Your task to perform on an android device: Open location settings Image 0: 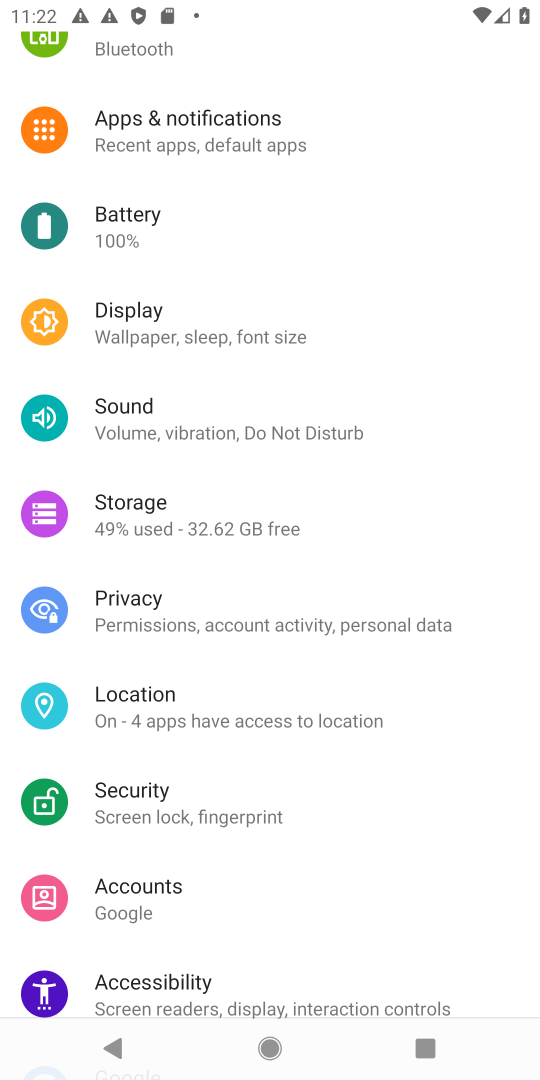
Step 0: press home button
Your task to perform on an android device: Open location settings Image 1: 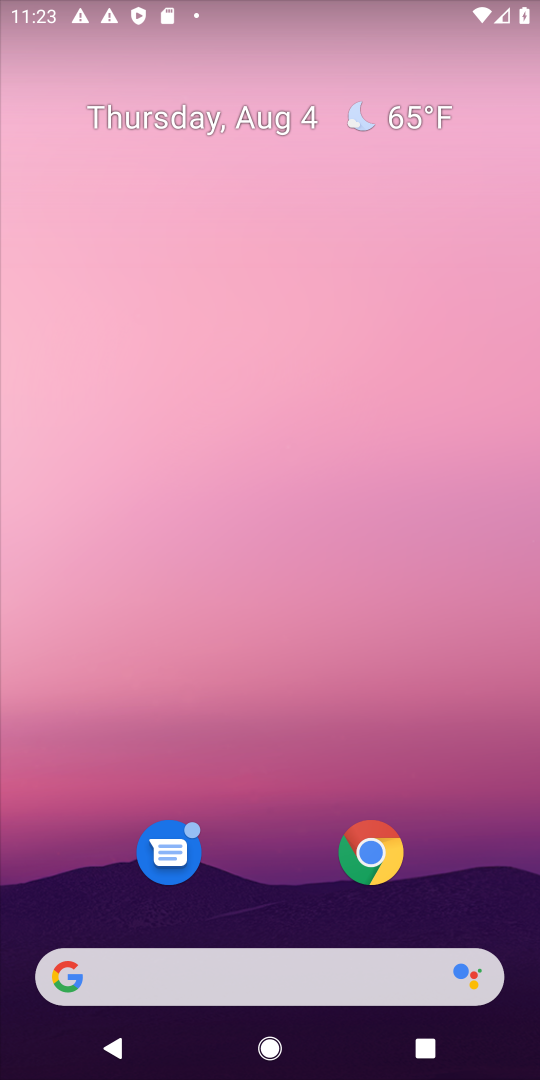
Step 1: drag from (479, 967) to (404, 271)
Your task to perform on an android device: Open location settings Image 2: 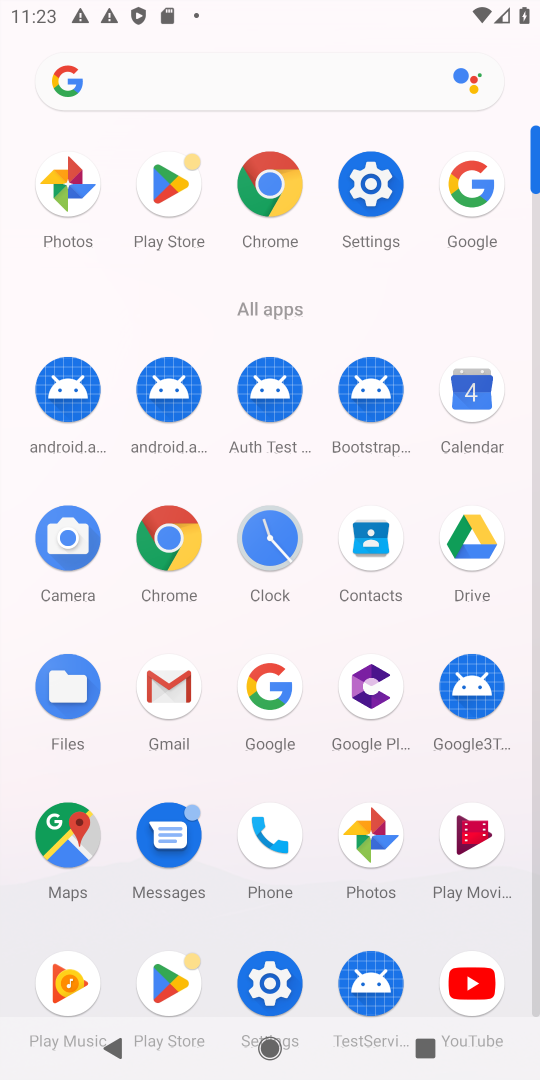
Step 2: click (260, 979)
Your task to perform on an android device: Open location settings Image 3: 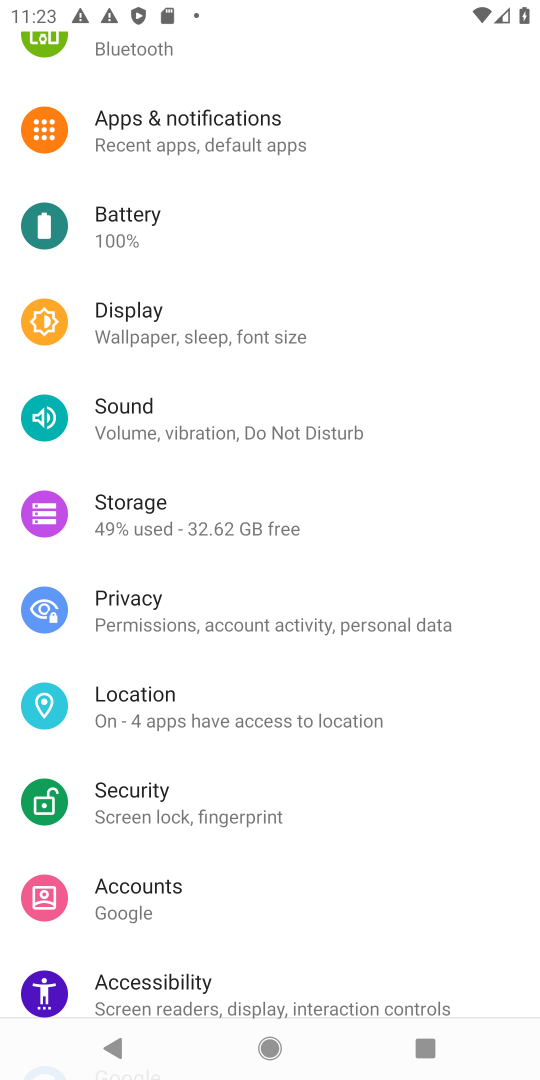
Step 3: click (157, 698)
Your task to perform on an android device: Open location settings Image 4: 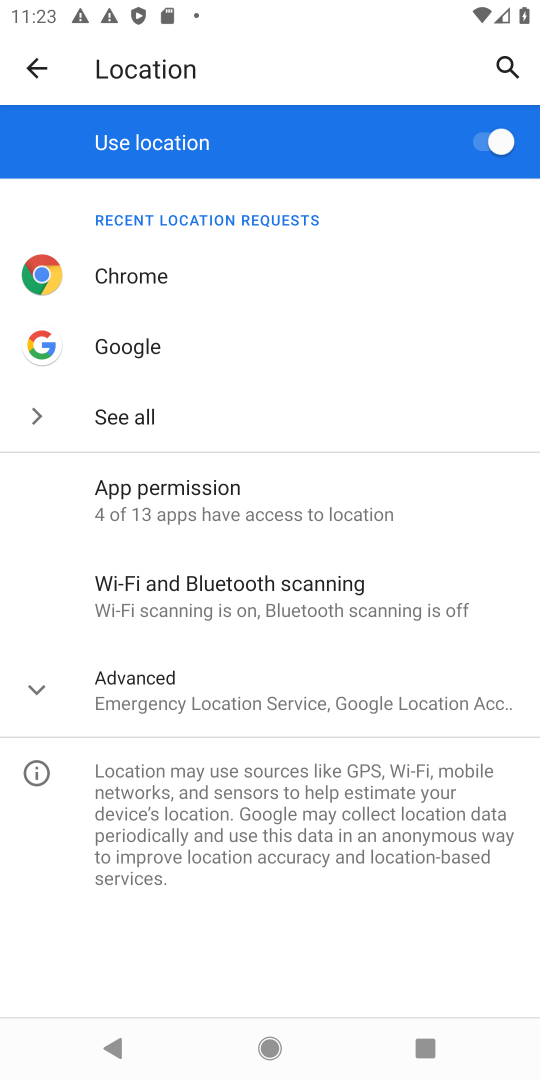
Step 4: click (38, 676)
Your task to perform on an android device: Open location settings Image 5: 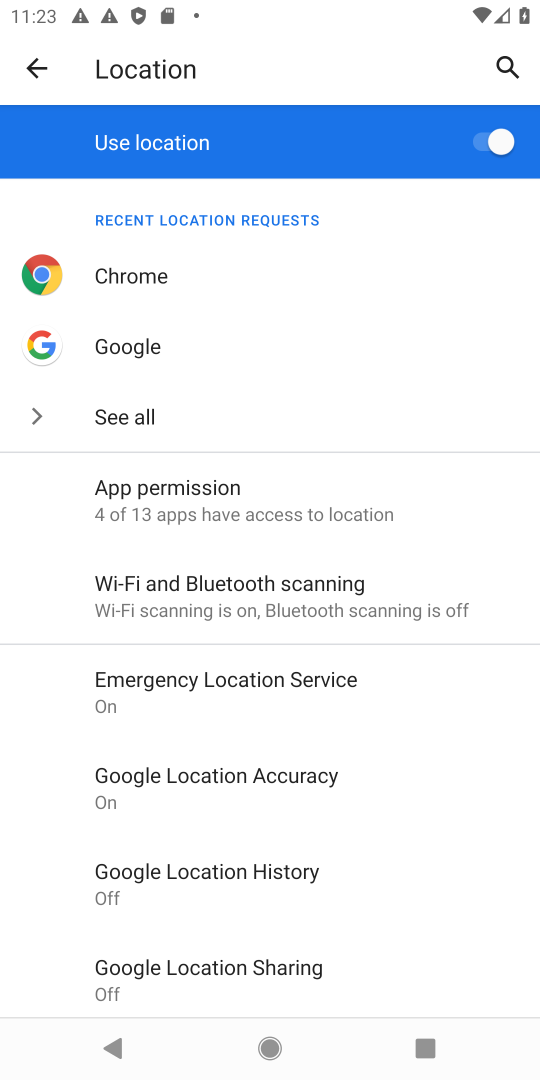
Step 5: task complete